Your task to perform on an android device: open a new tab in the chrome app Image 0: 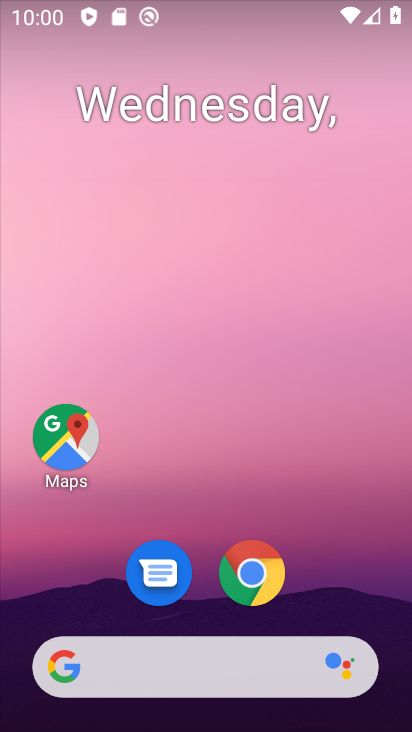
Step 0: click (243, 566)
Your task to perform on an android device: open a new tab in the chrome app Image 1: 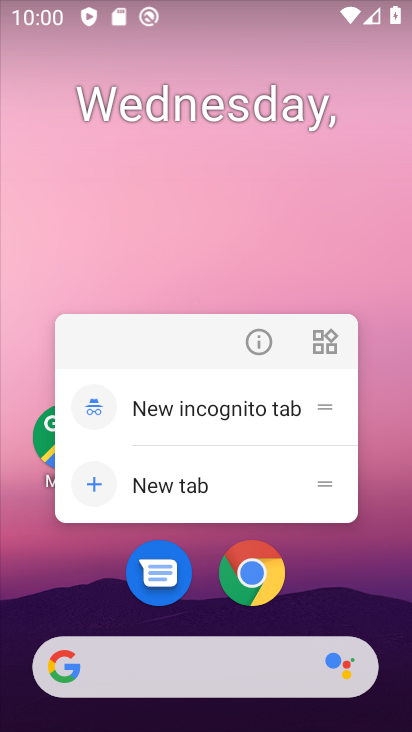
Step 1: click (243, 566)
Your task to perform on an android device: open a new tab in the chrome app Image 2: 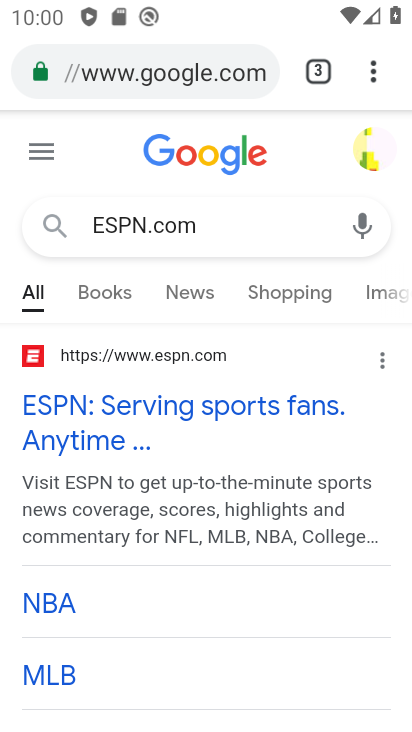
Step 2: click (371, 64)
Your task to perform on an android device: open a new tab in the chrome app Image 3: 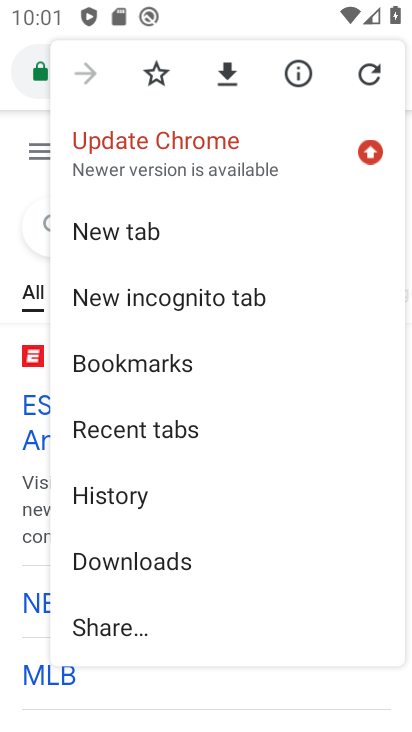
Step 3: click (129, 229)
Your task to perform on an android device: open a new tab in the chrome app Image 4: 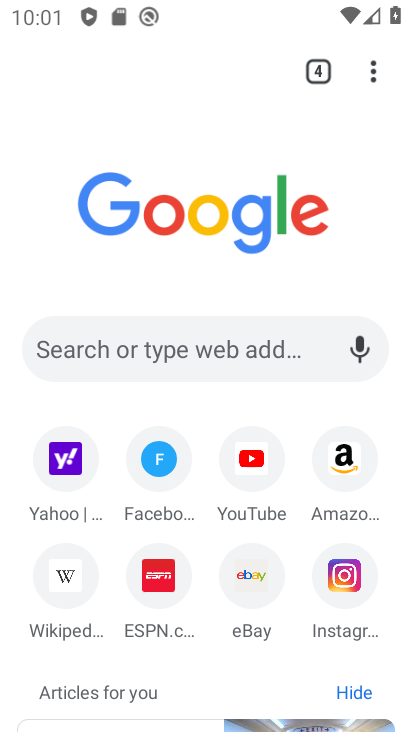
Step 4: task complete